Your task to perform on an android device: Open ESPN.com Image 0: 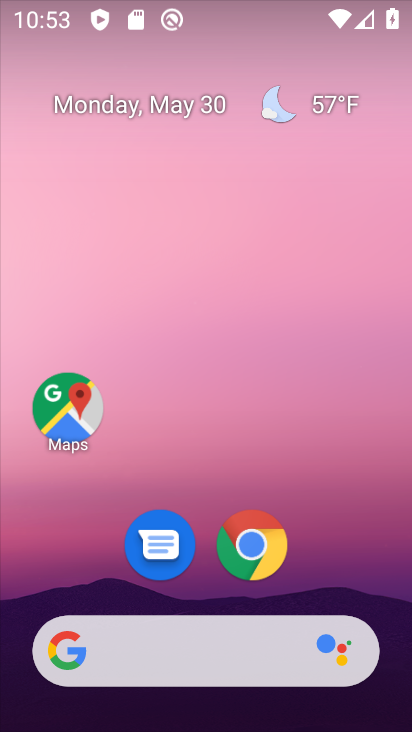
Step 0: drag from (257, 694) to (282, 328)
Your task to perform on an android device: Open ESPN.com Image 1: 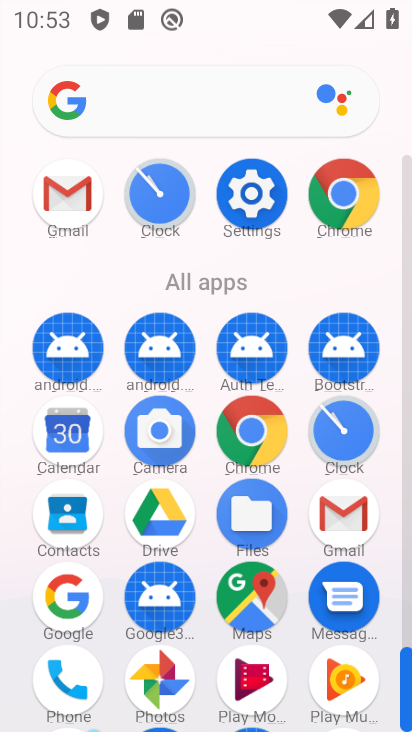
Step 1: click (335, 195)
Your task to perform on an android device: Open ESPN.com Image 2: 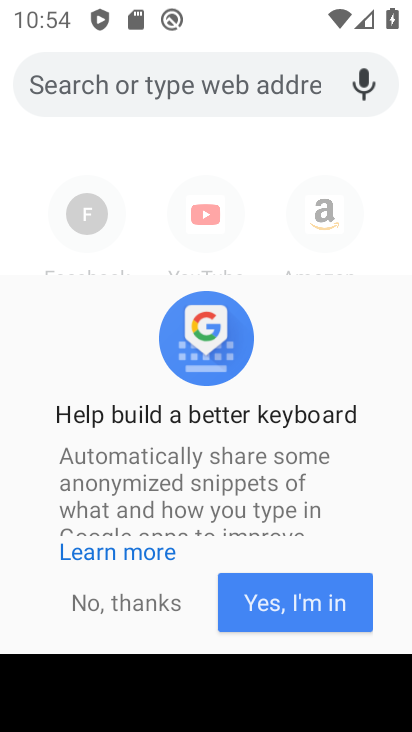
Step 2: click (124, 608)
Your task to perform on an android device: Open ESPN.com Image 3: 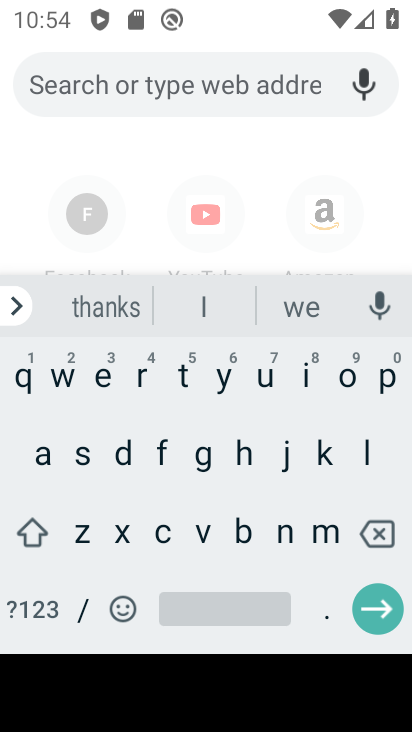
Step 3: click (99, 390)
Your task to perform on an android device: Open ESPN.com Image 4: 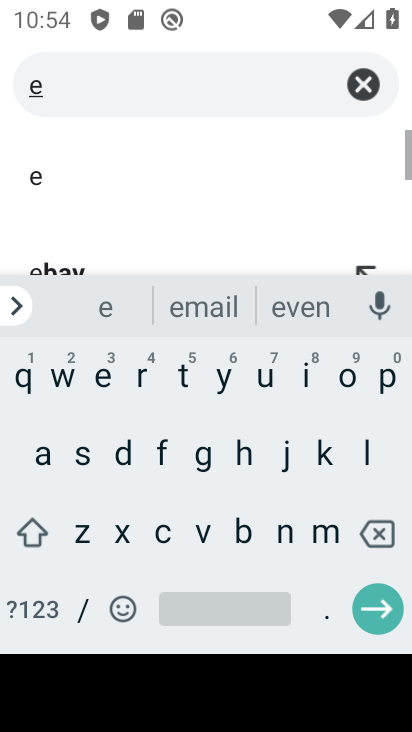
Step 4: click (81, 453)
Your task to perform on an android device: Open ESPN.com Image 5: 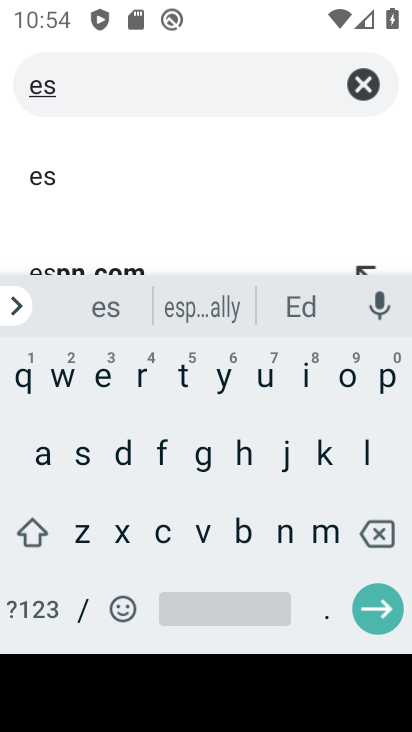
Step 5: click (134, 257)
Your task to perform on an android device: Open ESPN.com Image 6: 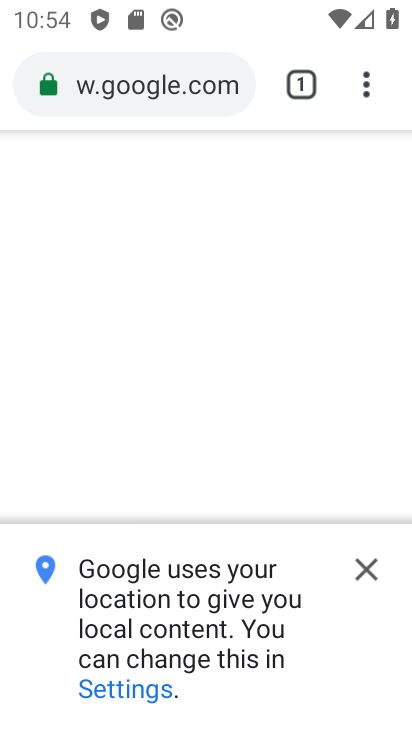
Step 6: click (372, 572)
Your task to perform on an android device: Open ESPN.com Image 7: 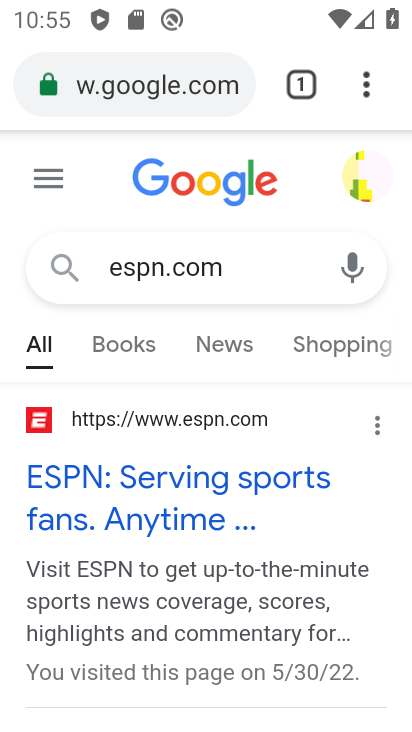
Step 7: click (161, 483)
Your task to perform on an android device: Open ESPN.com Image 8: 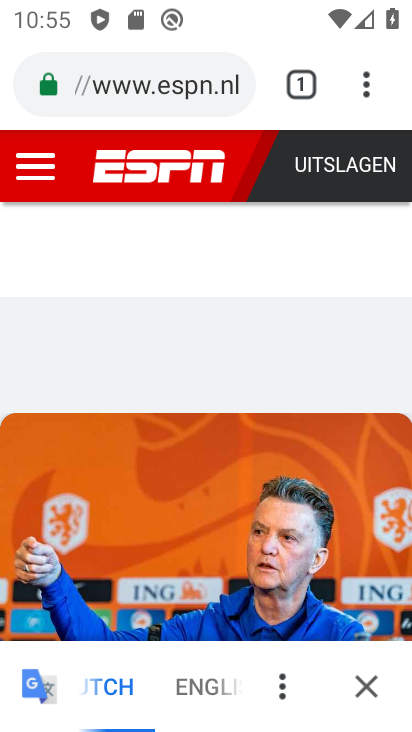
Step 8: task complete